Your task to perform on an android device: See recent photos Image 0: 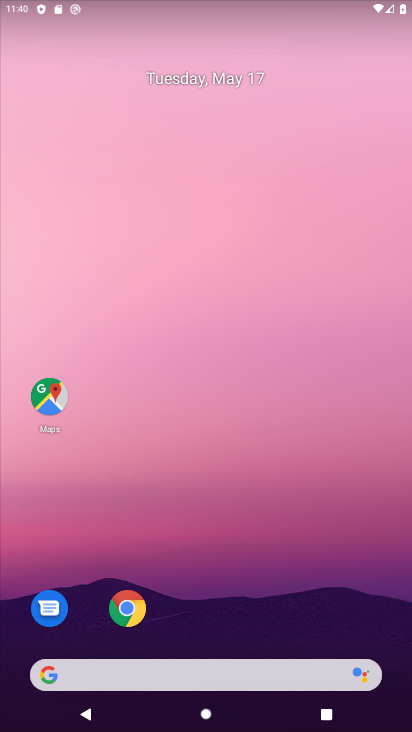
Step 0: click (253, 111)
Your task to perform on an android device: See recent photos Image 1: 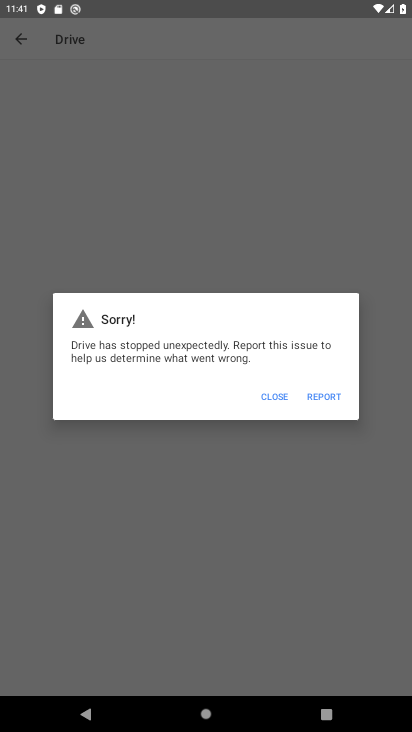
Step 1: press home button
Your task to perform on an android device: See recent photos Image 2: 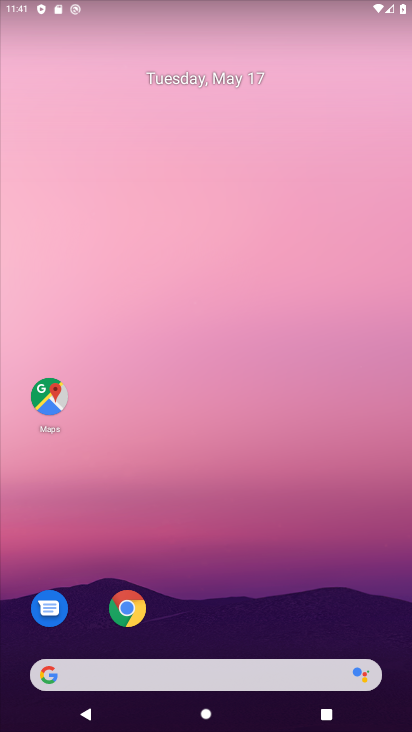
Step 2: click (156, 671)
Your task to perform on an android device: See recent photos Image 3: 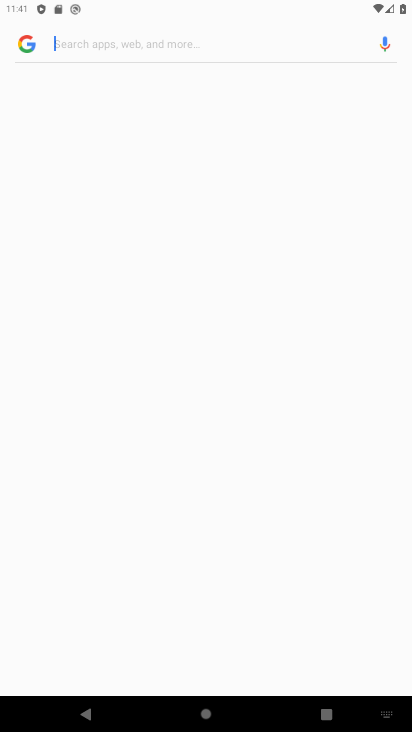
Step 3: press home button
Your task to perform on an android device: See recent photos Image 4: 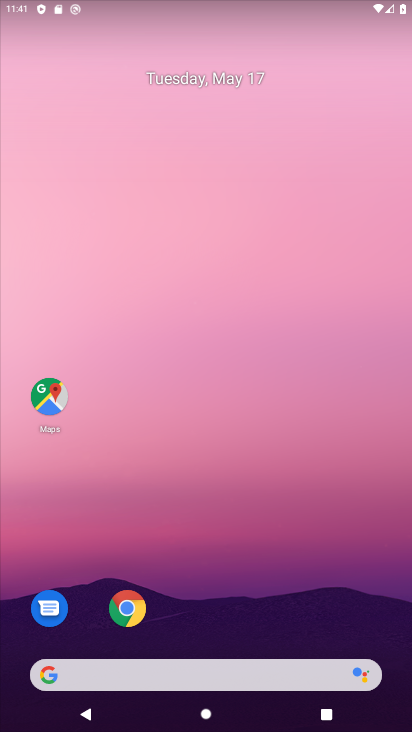
Step 4: drag from (252, 729) to (213, 137)
Your task to perform on an android device: See recent photos Image 5: 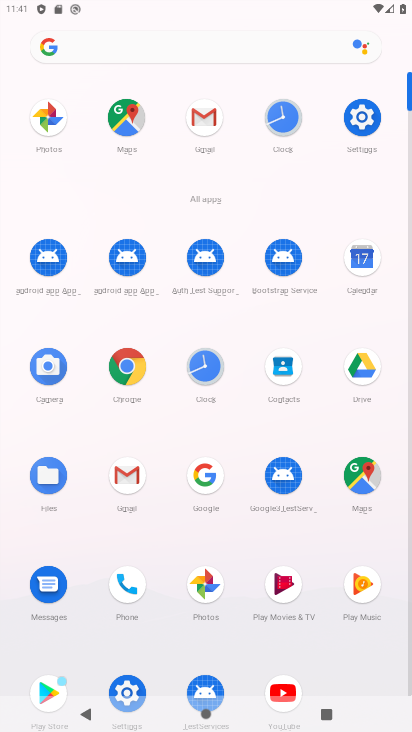
Step 5: click (47, 112)
Your task to perform on an android device: See recent photos Image 6: 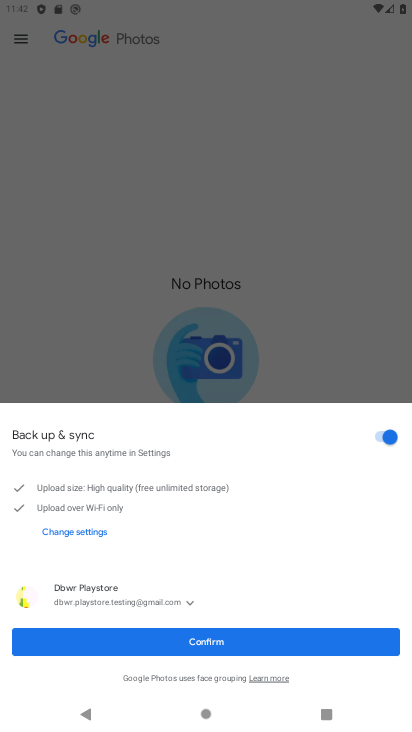
Step 6: click (243, 647)
Your task to perform on an android device: See recent photos Image 7: 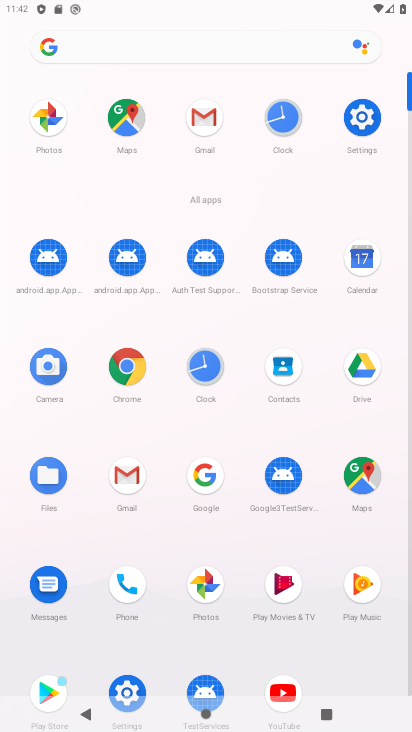
Step 7: click (41, 129)
Your task to perform on an android device: See recent photos Image 8: 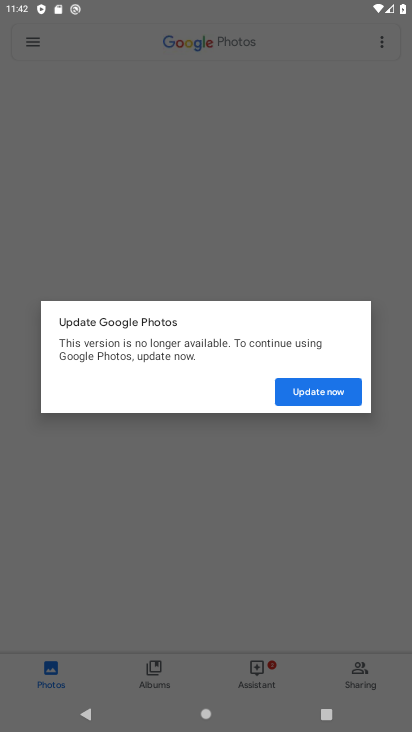
Step 8: click (313, 389)
Your task to perform on an android device: See recent photos Image 9: 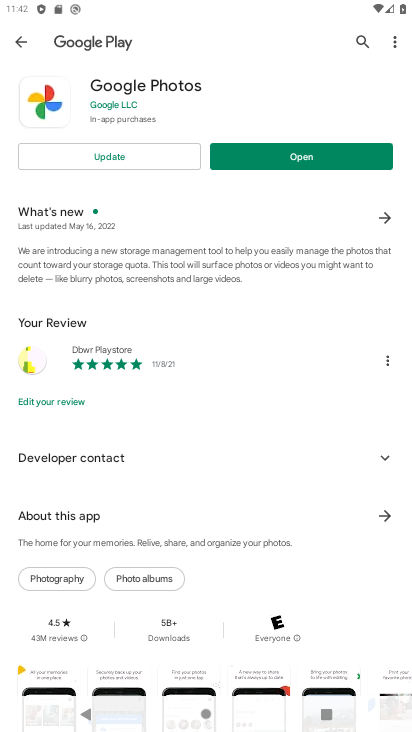
Step 9: click (142, 156)
Your task to perform on an android device: See recent photos Image 10: 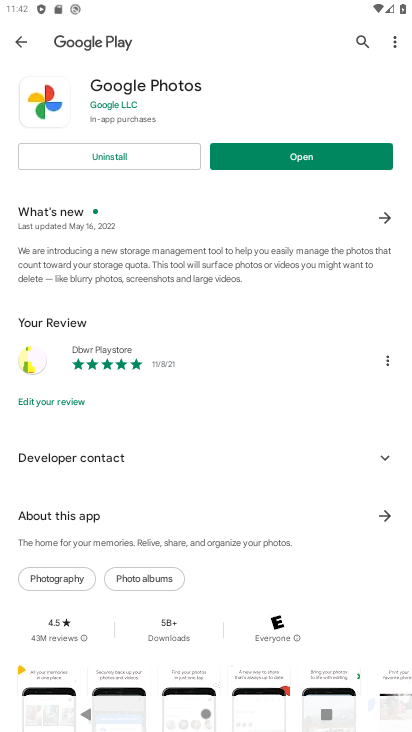
Step 10: click (330, 155)
Your task to perform on an android device: See recent photos Image 11: 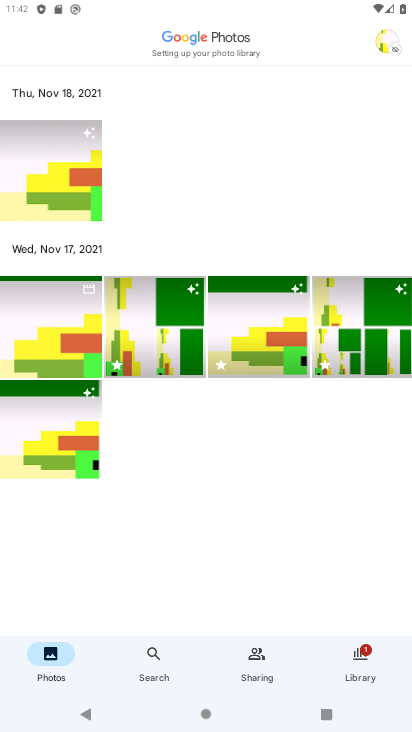
Step 11: task complete